Your task to perform on an android device: Search for sushi restaurants on Maps Image 0: 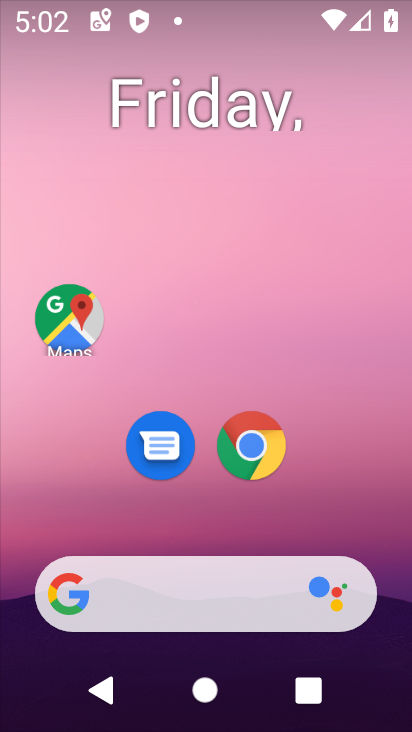
Step 0: click (57, 322)
Your task to perform on an android device: Search for sushi restaurants on Maps Image 1: 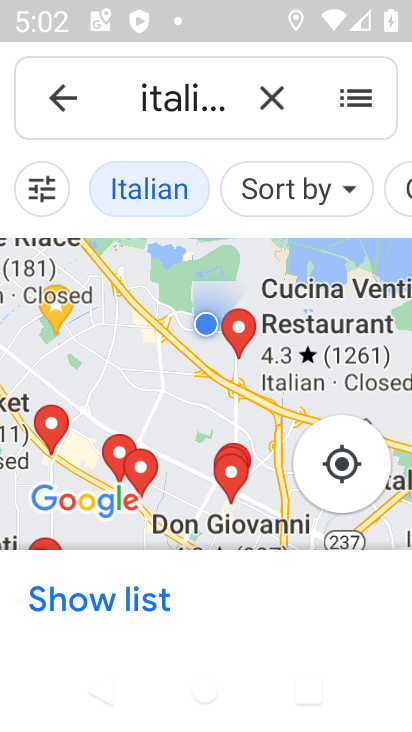
Step 1: click (279, 106)
Your task to perform on an android device: Search for sushi restaurants on Maps Image 2: 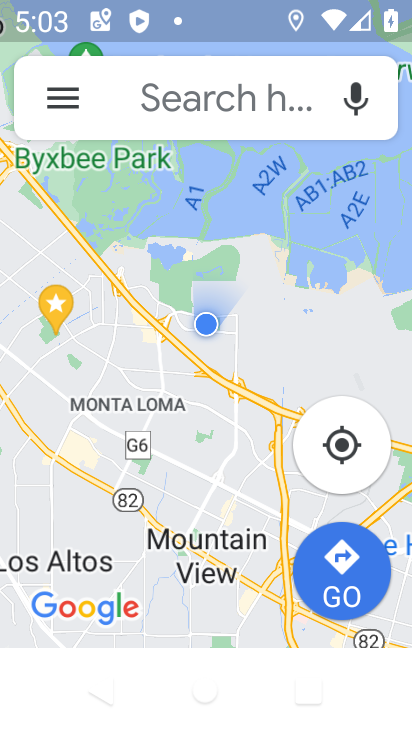
Step 2: click (267, 101)
Your task to perform on an android device: Search for sushi restaurants on Maps Image 3: 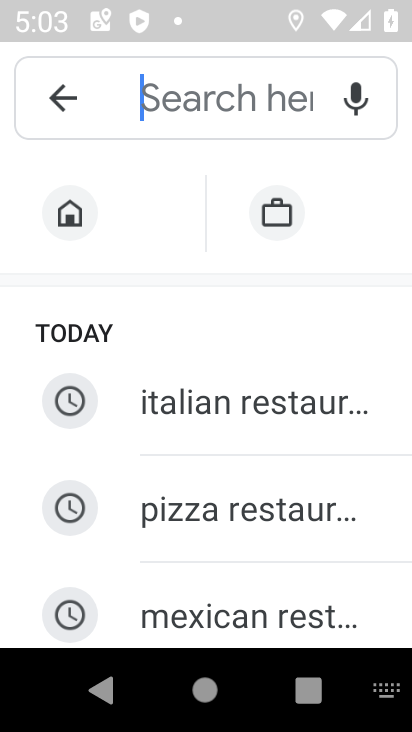
Step 3: type "sushi"
Your task to perform on an android device: Search for sushi restaurants on Maps Image 4: 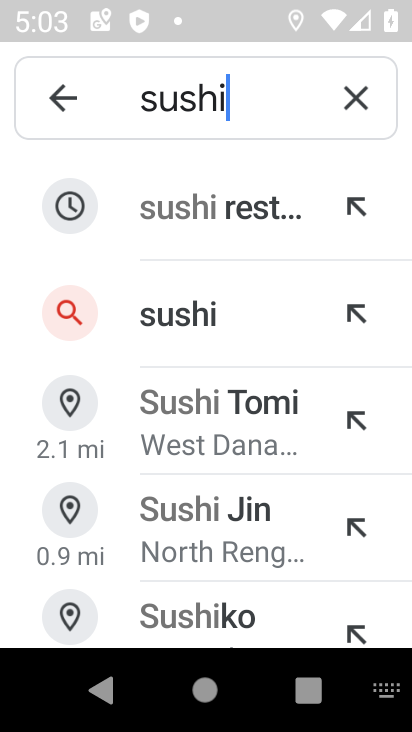
Step 4: click (215, 199)
Your task to perform on an android device: Search for sushi restaurants on Maps Image 5: 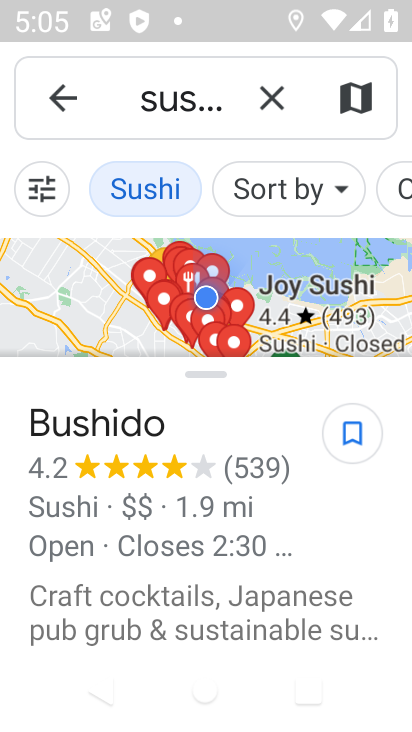
Step 5: task complete